Your task to perform on an android device: turn on javascript in the chrome app Image 0: 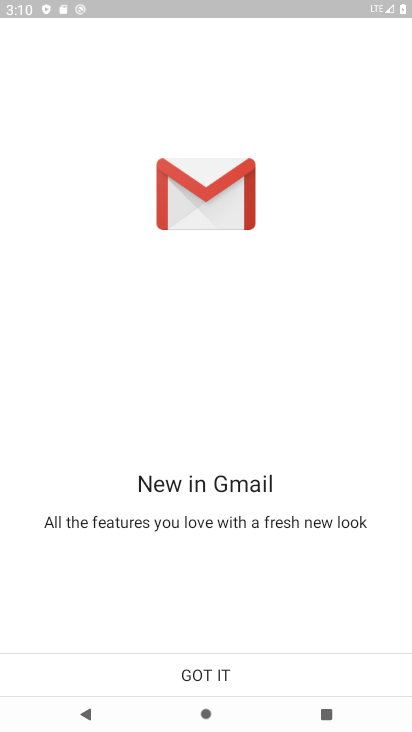
Step 0: press home button
Your task to perform on an android device: turn on javascript in the chrome app Image 1: 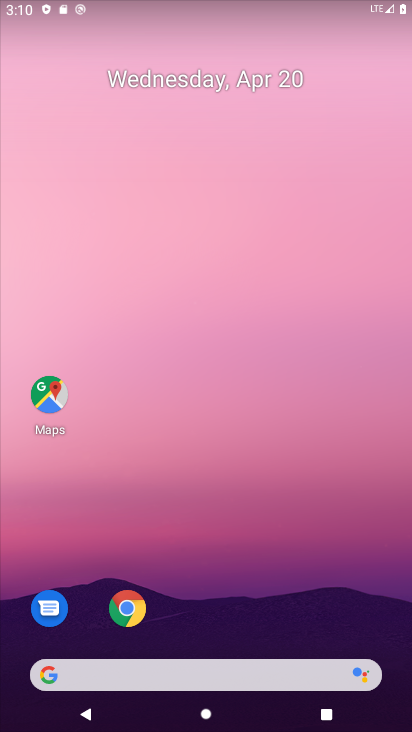
Step 1: click (111, 610)
Your task to perform on an android device: turn on javascript in the chrome app Image 2: 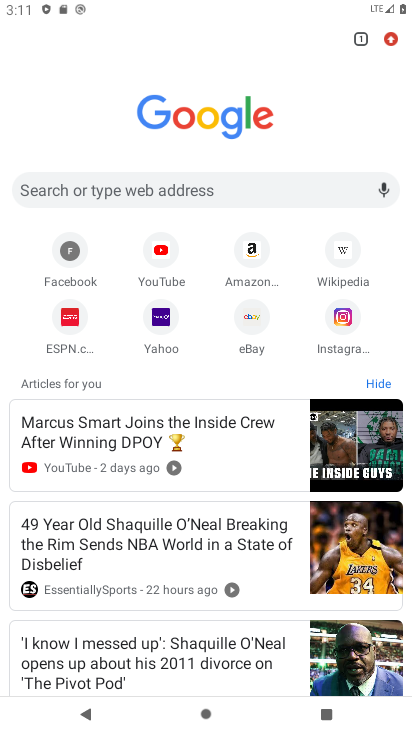
Step 2: drag from (391, 37) to (296, 371)
Your task to perform on an android device: turn on javascript in the chrome app Image 3: 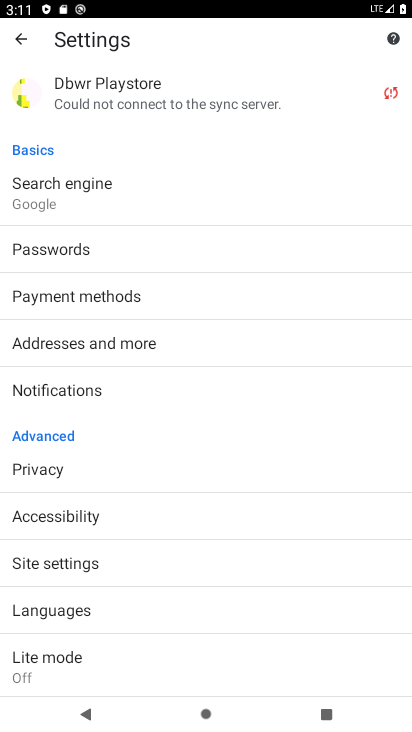
Step 3: click (62, 557)
Your task to perform on an android device: turn on javascript in the chrome app Image 4: 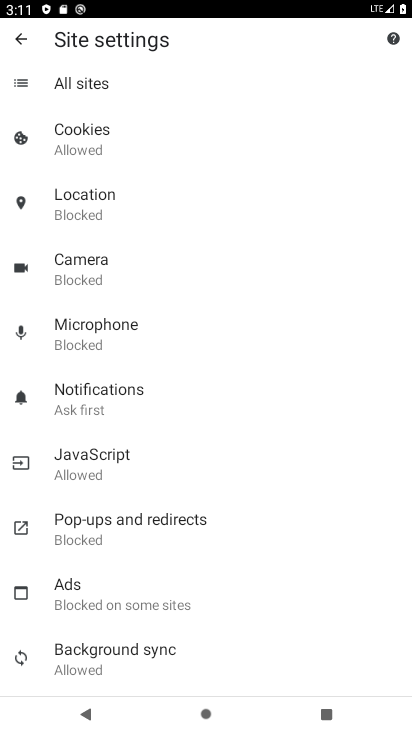
Step 4: click (123, 470)
Your task to perform on an android device: turn on javascript in the chrome app Image 5: 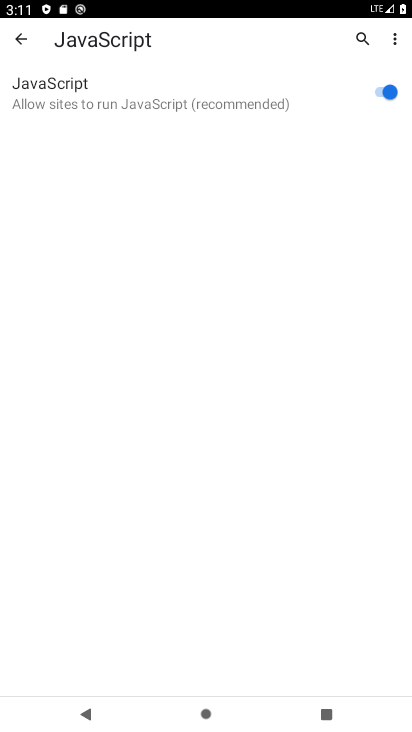
Step 5: task complete